Your task to perform on an android device: allow cookies in the chrome app Image 0: 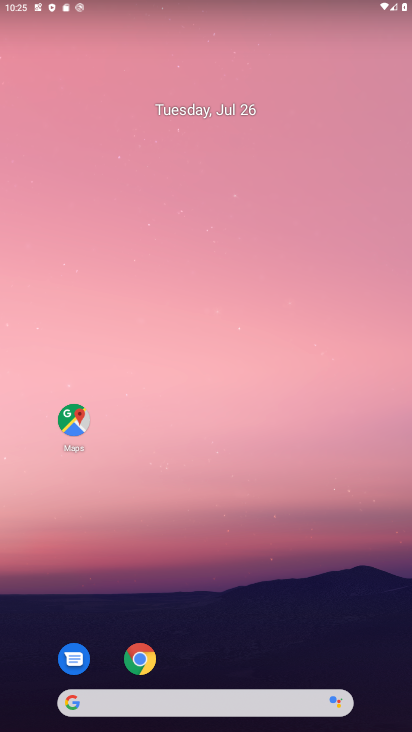
Step 0: drag from (267, 690) to (278, 21)
Your task to perform on an android device: allow cookies in the chrome app Image 1: 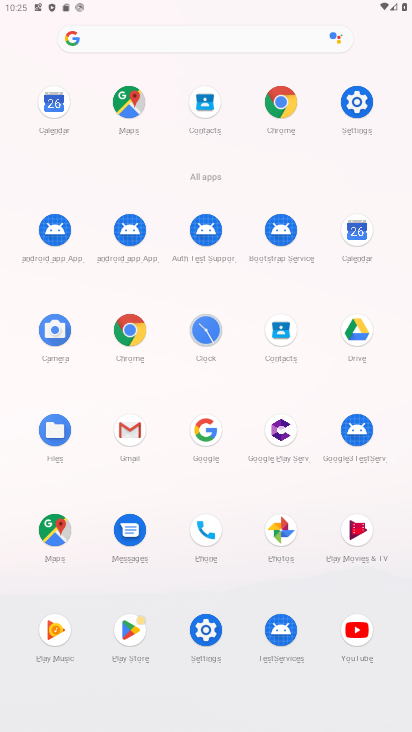
Step 1: click (141, 325)
Your task to perform on an android device: allow cookies in the chrome app Image 2: 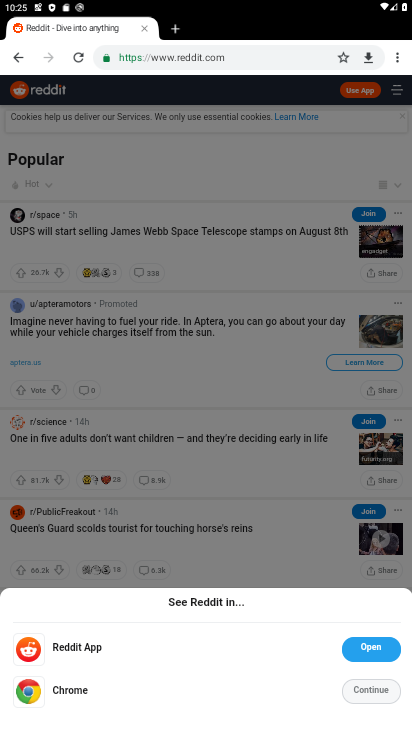
Step 2: drag from (403, 49) to (275, 382)
Your task to perform on an android device: allow cookies in the chrome app Image 3: 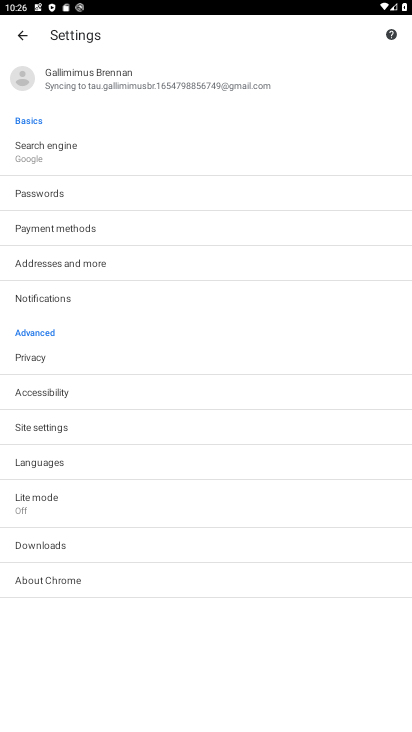
Step 3: click (45, 420)
Your task to perform on an android device: allow cookies in the chrome app Image 4: 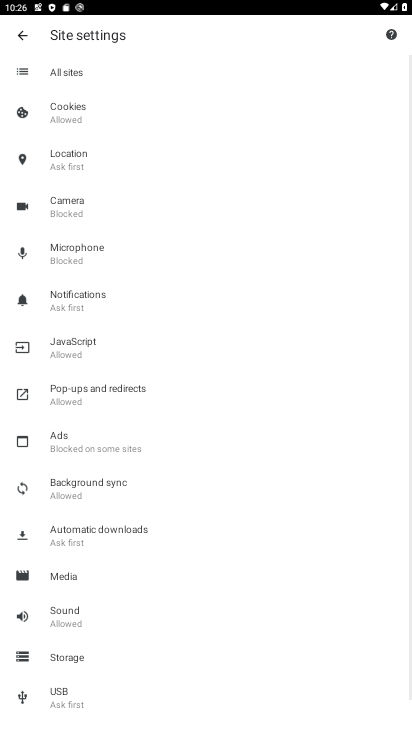
Step 4: click (26, 65)
Your task to perform on an android device: allow cookies in the chrome app Image 5: 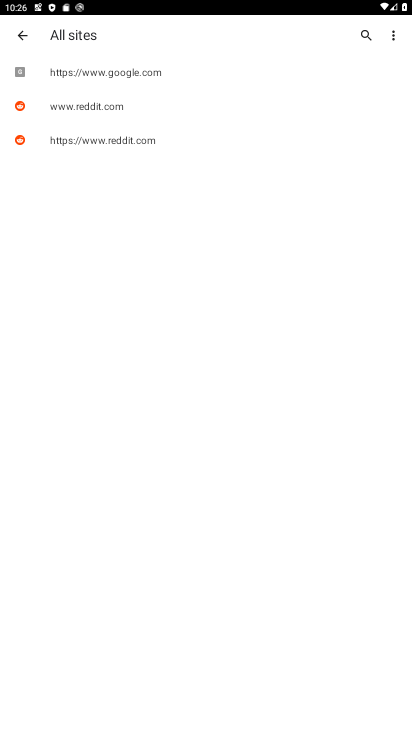
Step 5: click (12, 39)
Your task to perform on an android device: allow cookies in the chrome app Image 6: 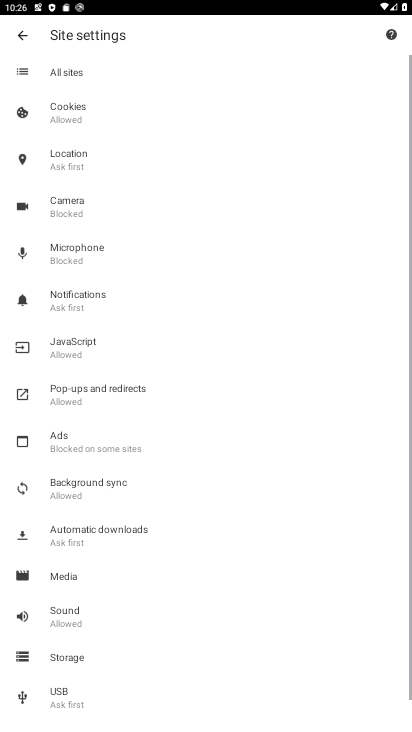
Step 6: click (95, 107)
Your task to perform on an android device: allow cookies in the chrome app Image 7: 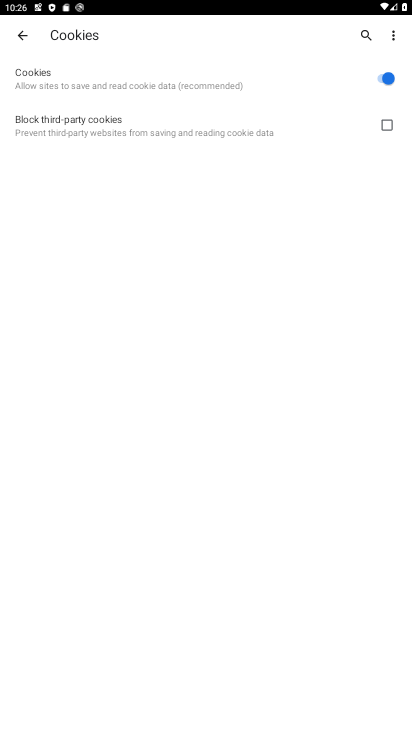
Step 7: task complete